Your task to perform on an android device: turn notification dots on Image 0: 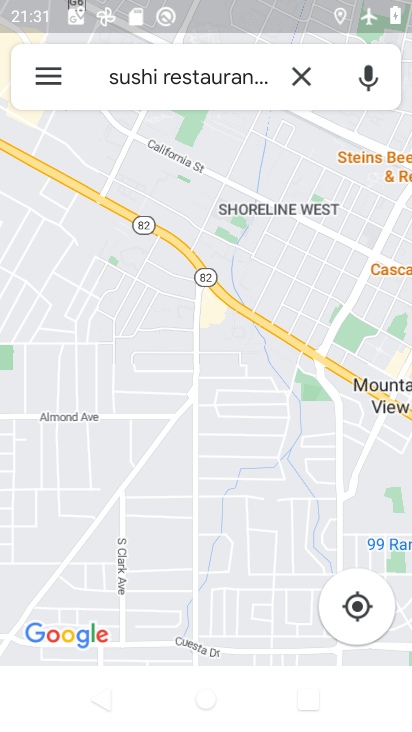
Step 0: drag from (141, 261) to (297, 699)
Your task to perform on an android device: turn notification dots on Image 1: 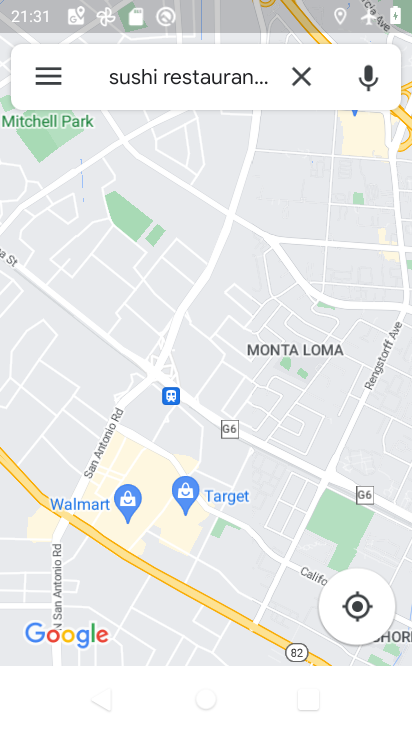
Step 1: click (295, 75)
Your task to perform on an android device: turn notification dots on Image 2: 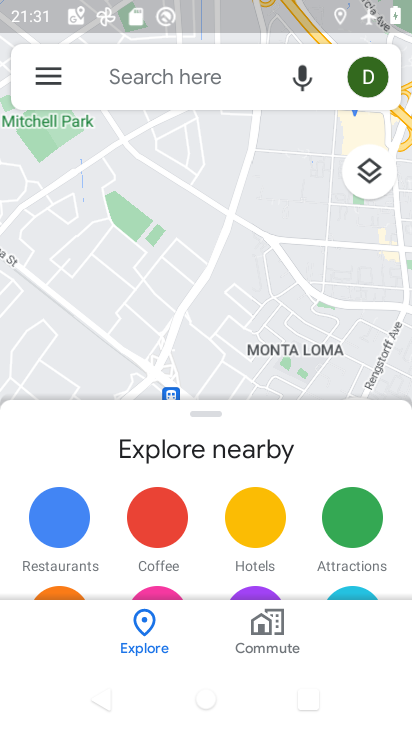
Step 2: click (47, 77)
Your task to perform on an android device: turn notification dots on Image 3: 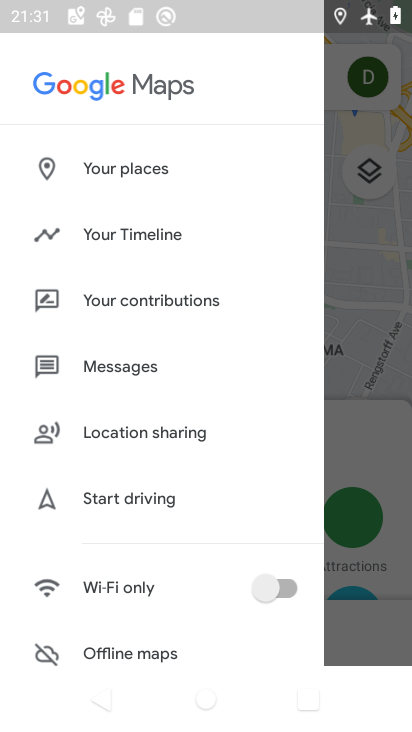
Step 3: drag from (158, 609) to (175, 262)
Your task to perform on an android device: turn notification dots on Image 4: 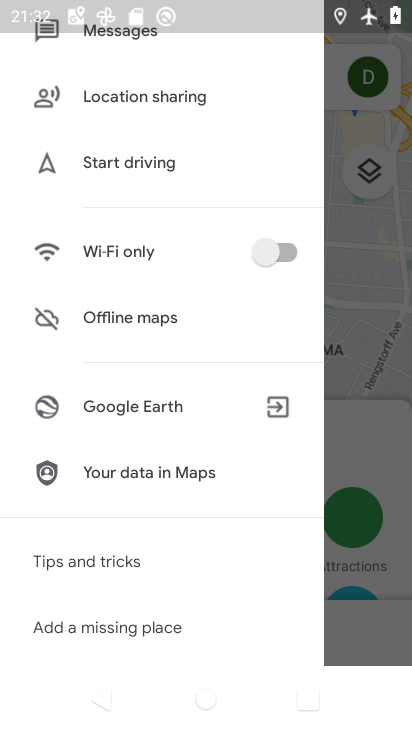
Step 4: drag from (185, 250) to (205, 703)
Your task to perform on an android device: turn notification dots on Image 5: 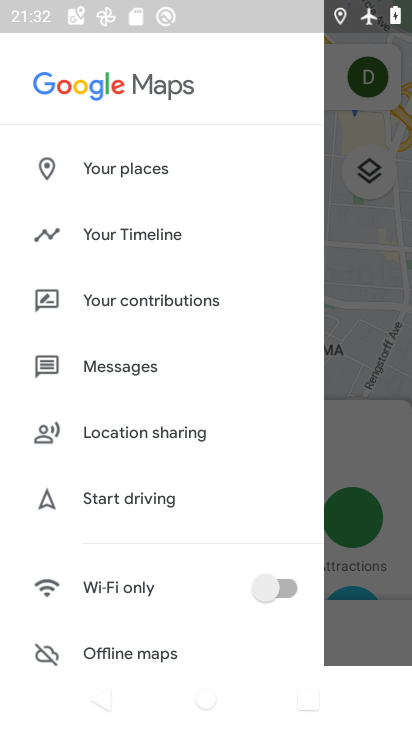
Step 5: drag from (183, 259) to (198, 664)
Your task to perform on an android device: turn notification dots on Image 6: 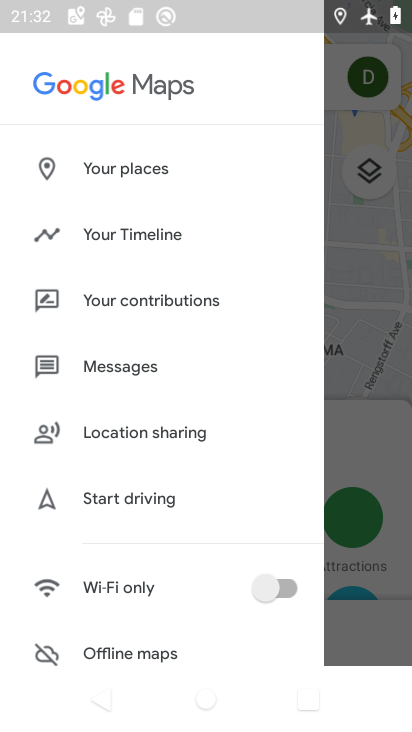
Step 6: drag from (181, 617) to (199, 671)
Your task to perform on an android device: turn notification dots on Image 7: 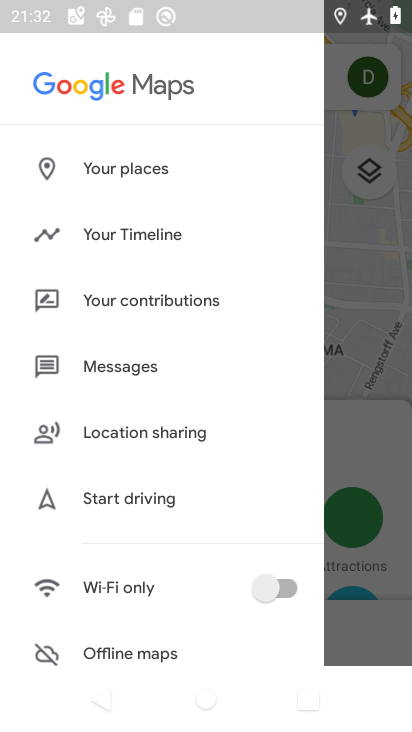
Step 7: drag from (172, 496) to (209, 593)
Your task to perform on an android device: turn notification dots on Image 8: 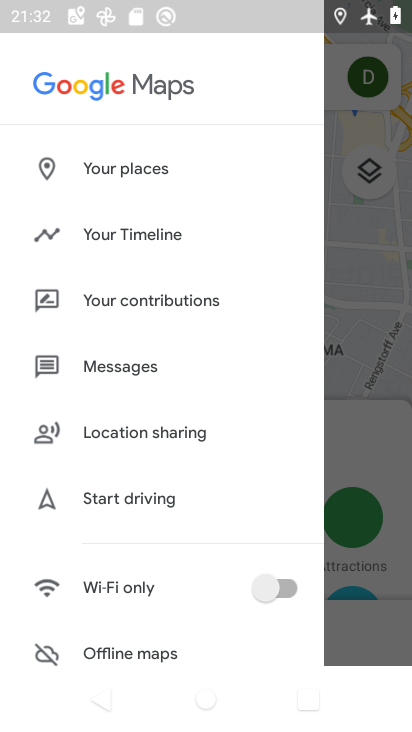
Step 8: drag from (152, 607) to (226, 101)
Your task to perform on an android device: turn notification dots on Image 9: 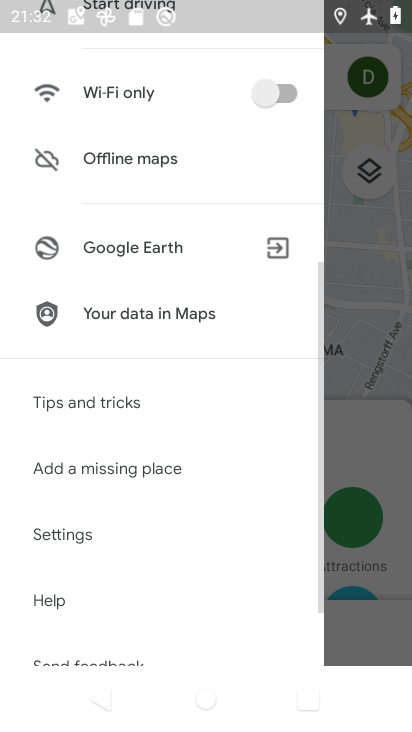
Step 9: drag from (170, 181) to (163, 727)
Your task to perform on an android device: turn notification dots on Image 10: 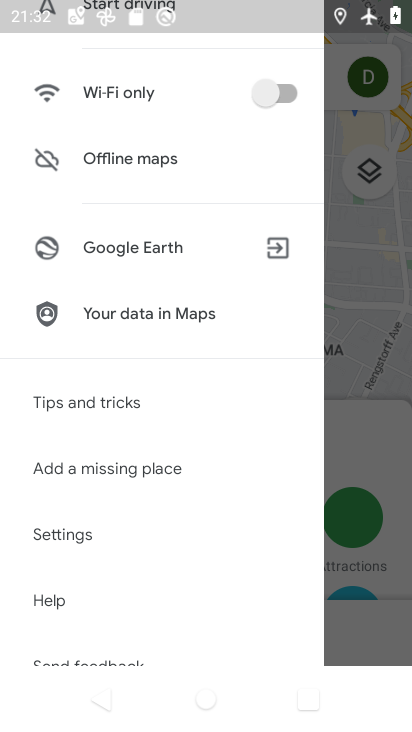
Step 10: drag from (161, 513) to (220, 19)
Your task to perform on an android device: turn notification dots on Image 11: 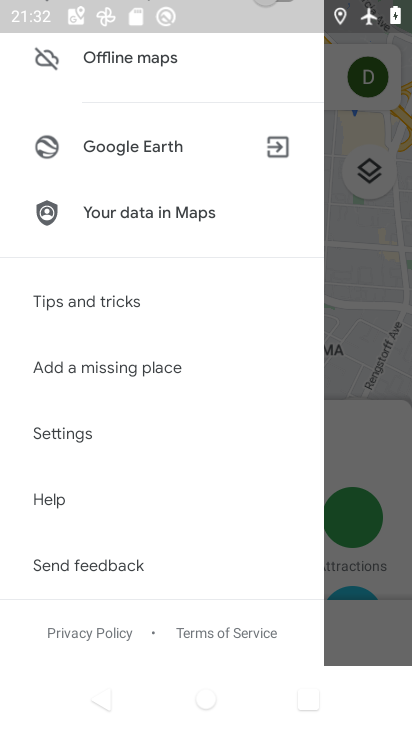
Step 11: click (98, 435)
Your task to perform on an android device: turn notification dots on Image 12: 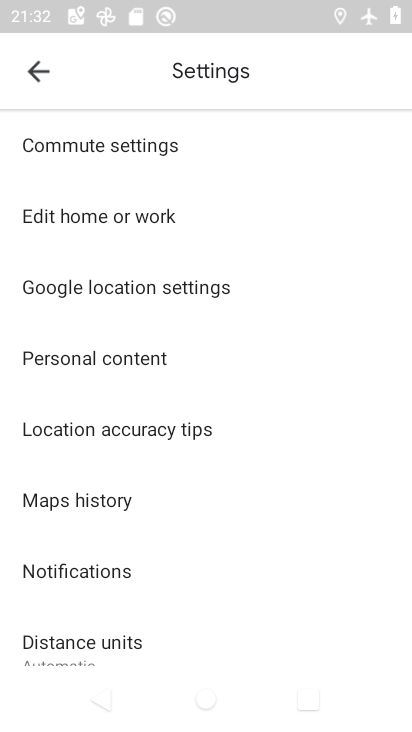
Step 12: drag from (194, 536) to (213, 237)
Your task to perform on an android device: turn notification dots on Image 13: 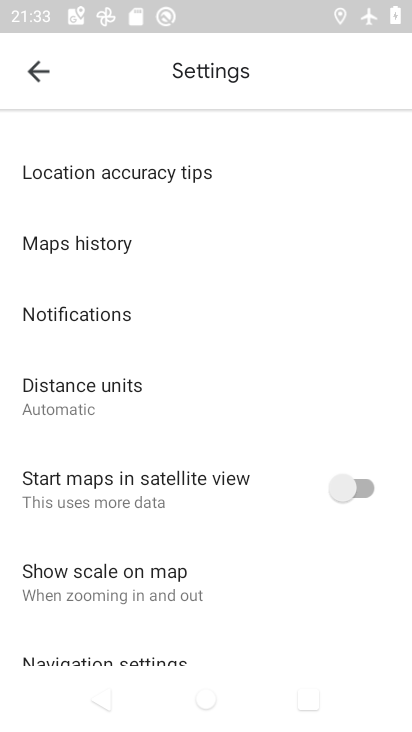
Step 13: drag from (194, 578) to (232, 206)
Your task to perform on an android device: turn notification dots on Image 14: 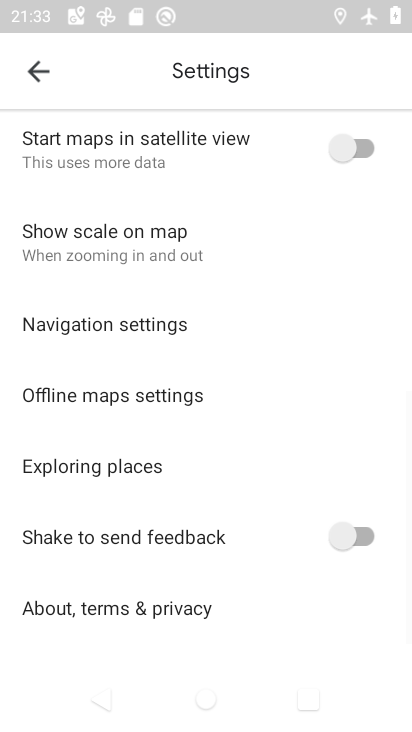
Step 14: drag from (191, 267) to (224, 730)
Your task to perform on an android device: turn notification dots on Image 15: 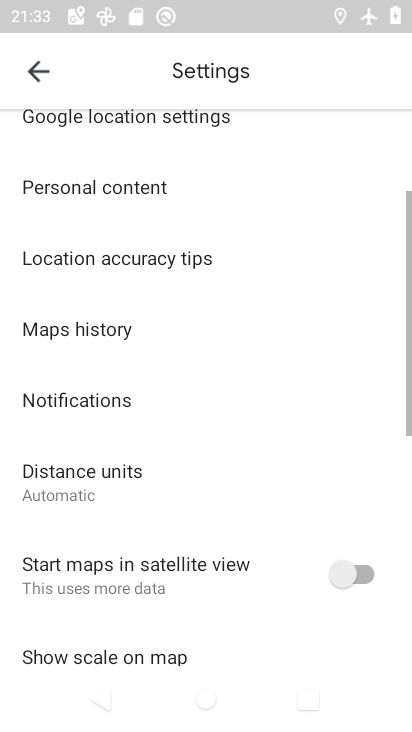
Step 15: drag from (161, 218) to (253, 676)
Your task to perform on an android device: turn notification dots on Image 16: 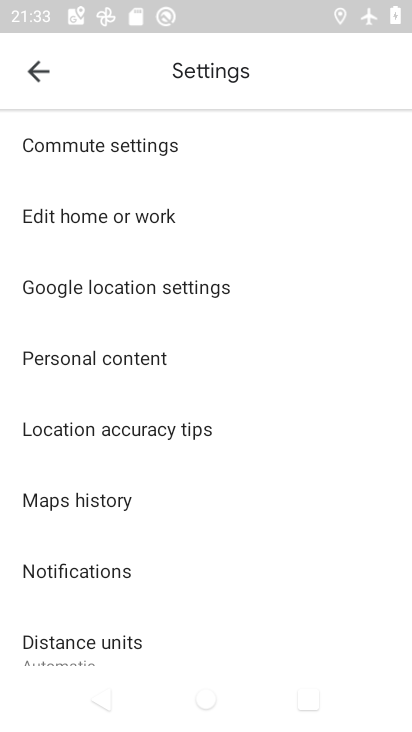
Step 16: drag from (178, 239) to (314, 718)
Your task to perform on an android device: turn notification dots on Image 17: 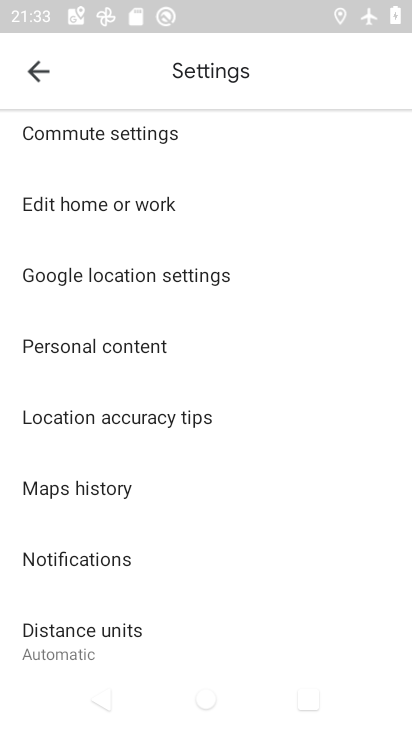
Step 17: click (106, 558)
Your task to perform on an android device: turn notification dots on Image 18: 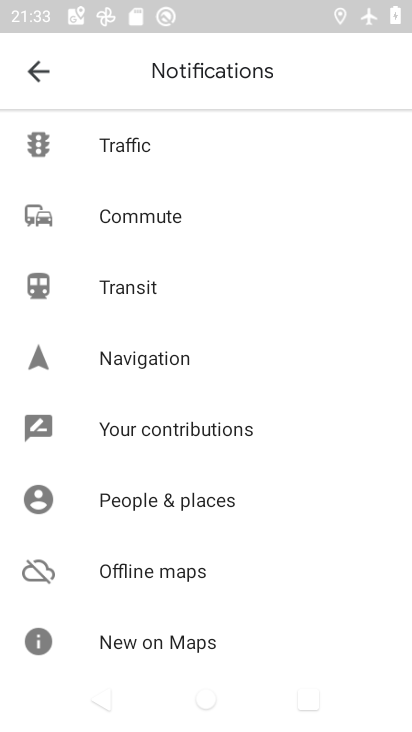
Step 18: drag from (217, 580) to (255, 215)
Your task to perform on an android device: turn notification dots on Image 19: 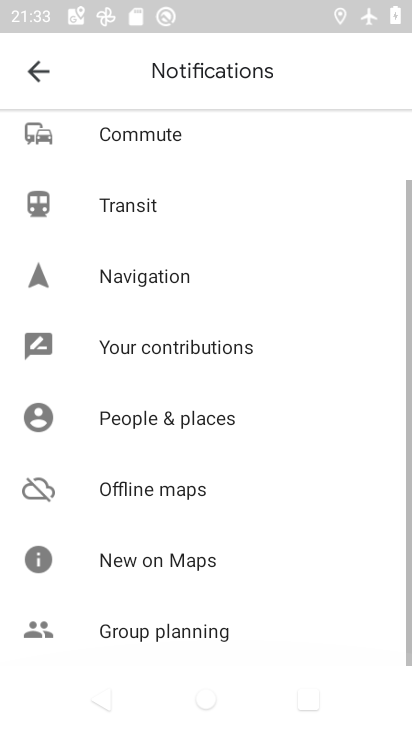
Step 19: drag from (250, 218) to (222, 618)
Your task to perform on an android device: turn notification dots on Image 20: 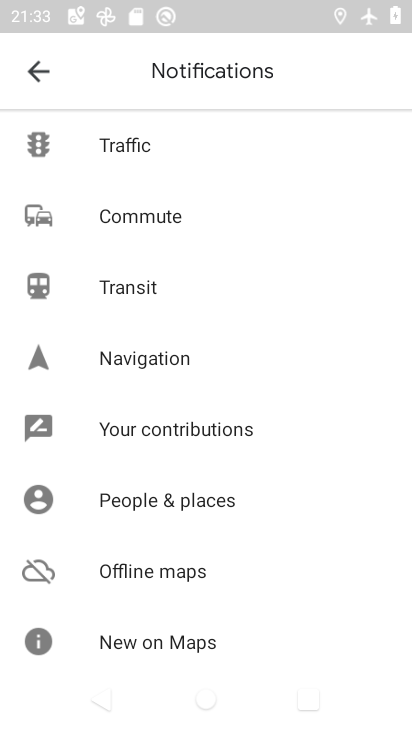
Step 20: drag from (190, 392) to (405, 543)
Your task to perform on an android device: turn notification dots on Image 21: 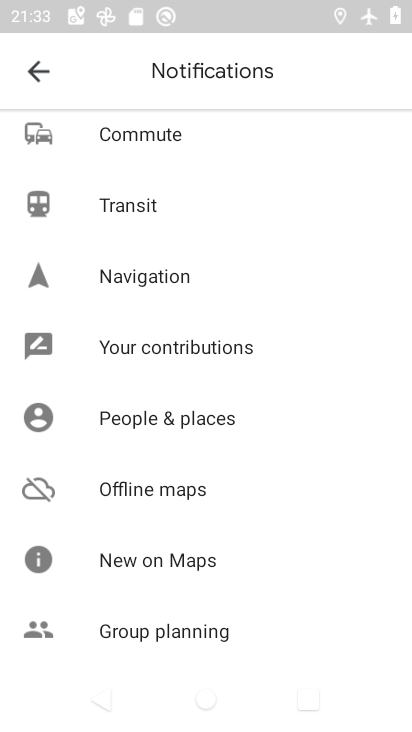
Step 21: click (26, 73)
Your task to perform on an android device: turn notification dots on Image 22: 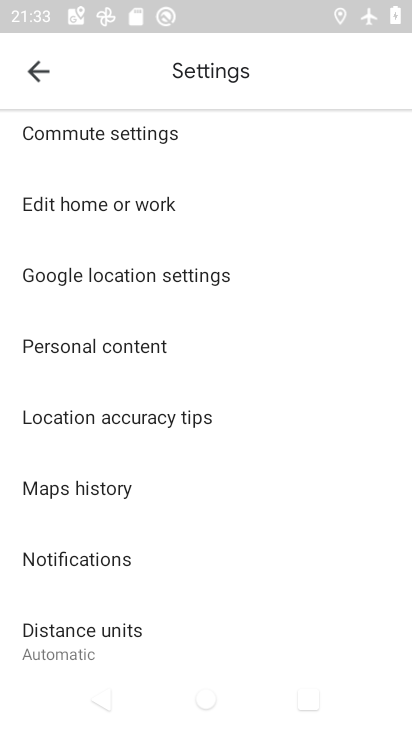
Step 22: drag from (207, 199) to (214, 711)
Your task to perform on an android device: turn notification dots on Image 23: 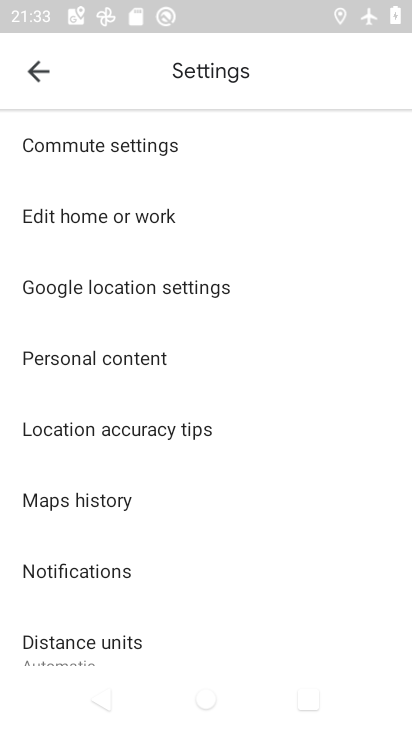
Step 23: click (37, 64)
Your task to perform on an android device: turn notification dots on Image 24: 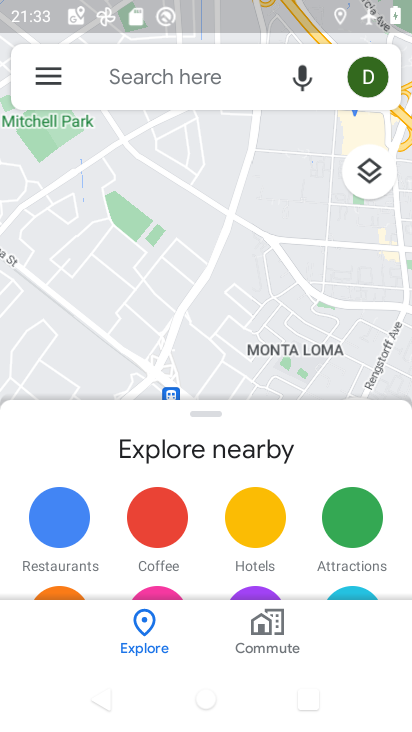
Step 24: click (37, 79)
Your task to perform on an android device: turn notification dots on Image 25: 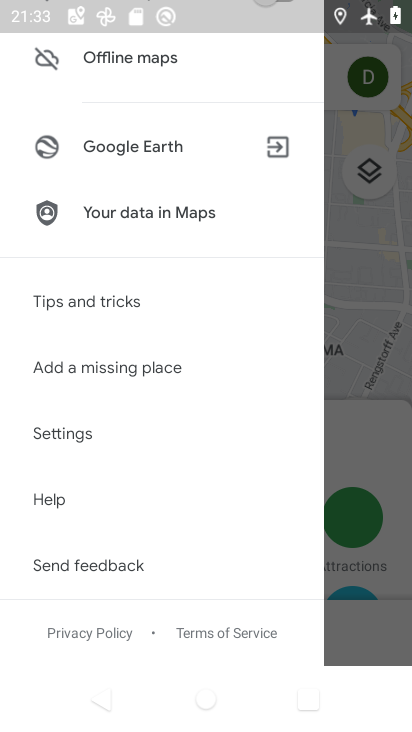
Step 25: press home button
Your task to perform on an android device: turn notification dots on Image 26: 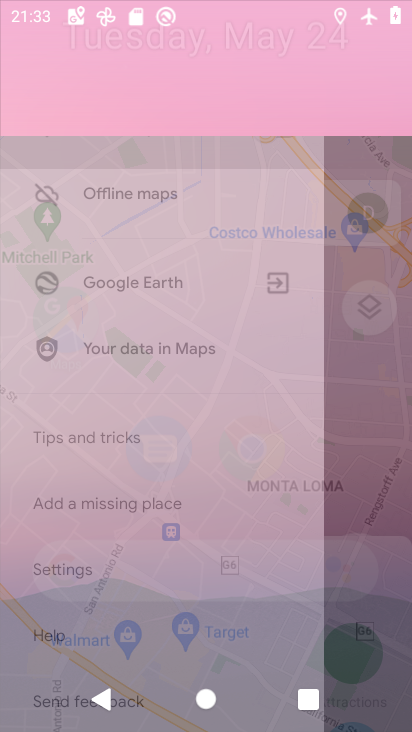
Step 26: drag from (172, 585) to (187, 80)
Your task to perform on an android device: turn notification dots on Image 27: 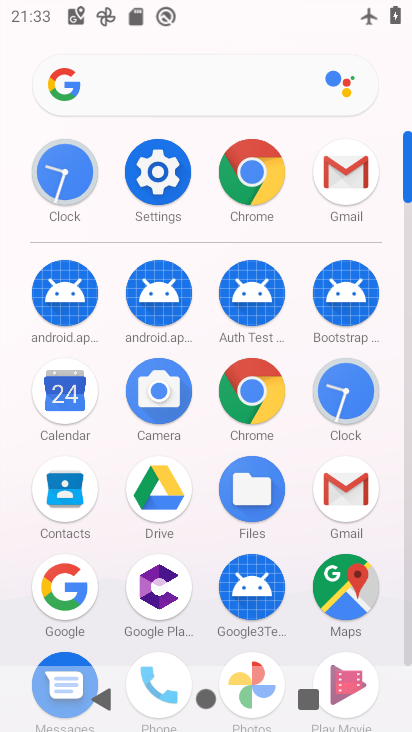
Step 27: click (155, 151)
Your task to perform on an android device: turn notification dots on Image 28: 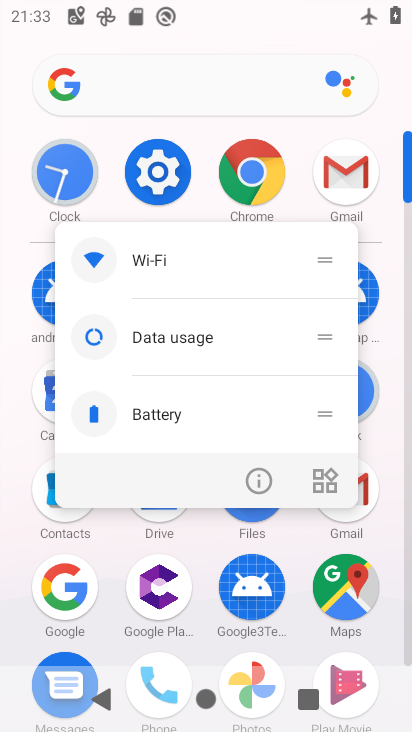
Step 28: click (258, 481)
Your task to perform on an android device: turn notification dots on Image 29: 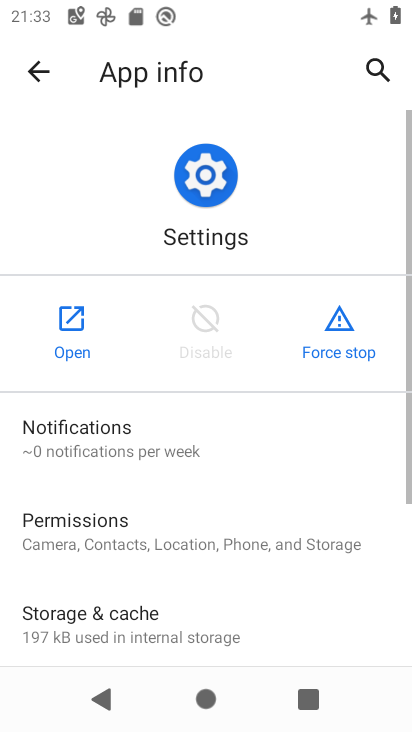
Step 29: click (64, 327)
Your task to perform on an android device: turn notification dots on Image 30: 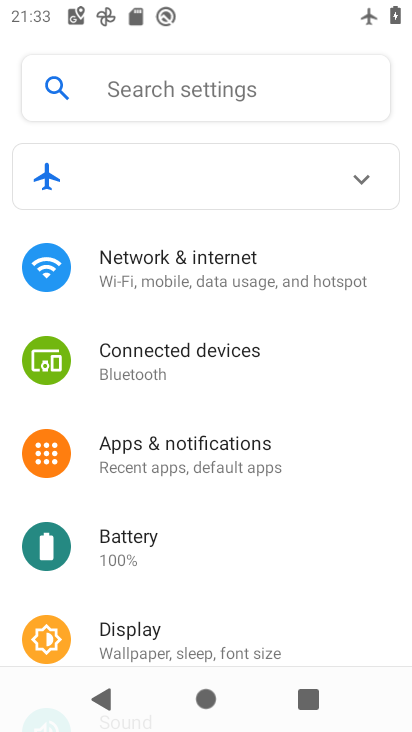
Step 30: drag from (232, 551) to (221, 239)
Your task to perform on an android device: turn notification dots on Image 31: 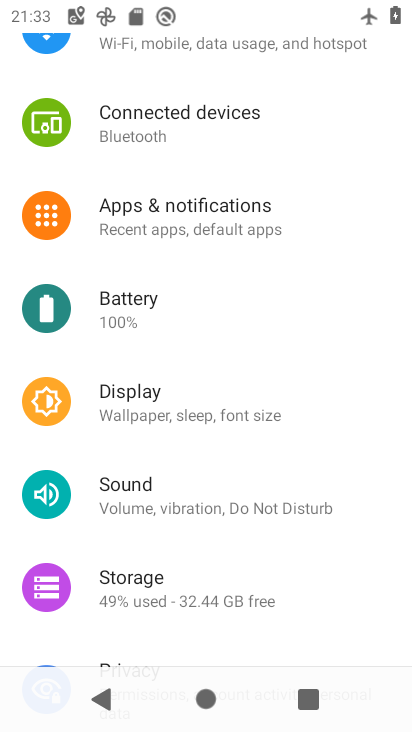
Step 31: drag from (217, 579) to (230, 190)
Your task to perform on an android device: turn notification dots on Image 32: 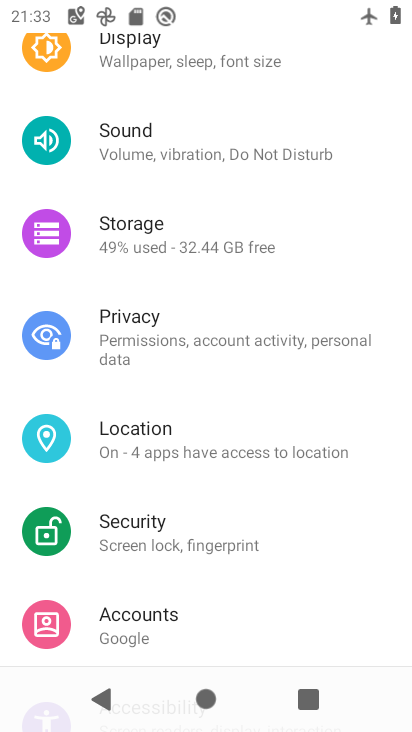
Step 32: drag from (217, 193) to (234, 655)
Your task to perform on an android device: turn notification dots on Image 33: 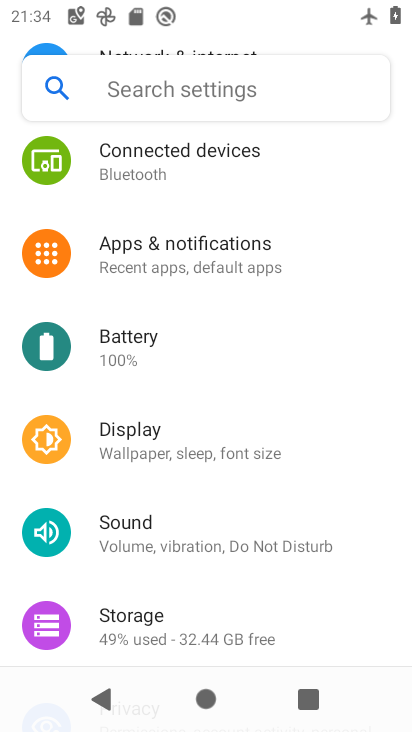
Step 33: click (145, 245)
Your task to perform on an android device: turn notification dots on Image 34: 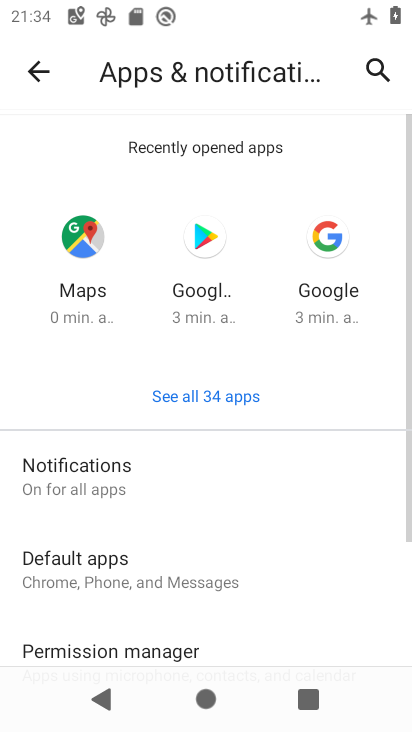
Step 34: drag from (178, 518) to (256, 202)
Your task to perform on an android device: turn notification dots on Image 35: 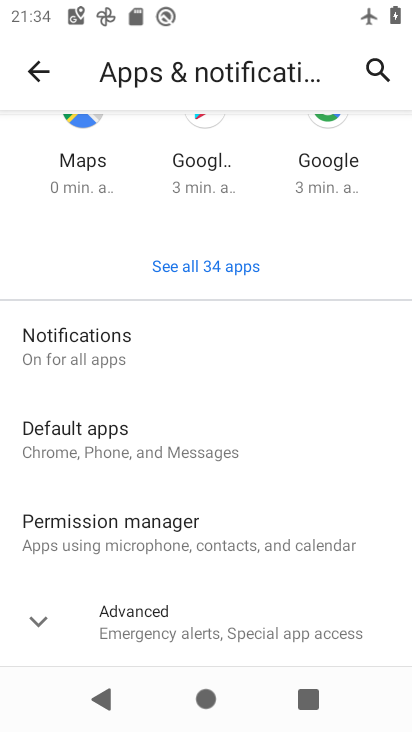
Step 35: click (184, 342)
Your task to perform on an android device: turn notification dots on Image 36: 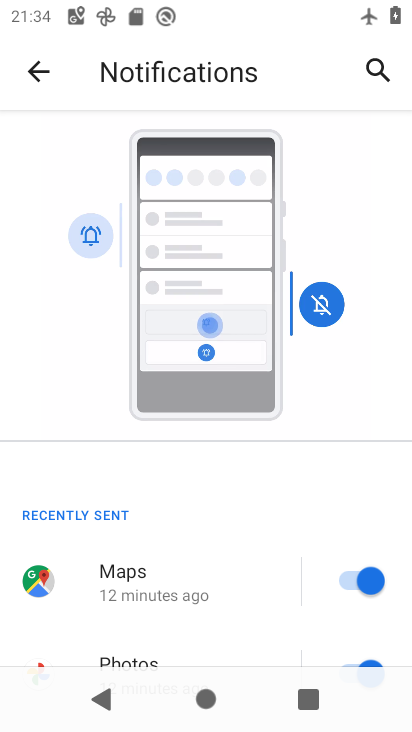
Step 36: drag from (206, 630) to (301, 144)
Your task to perform on an android device: turn notification dots on Image 37: 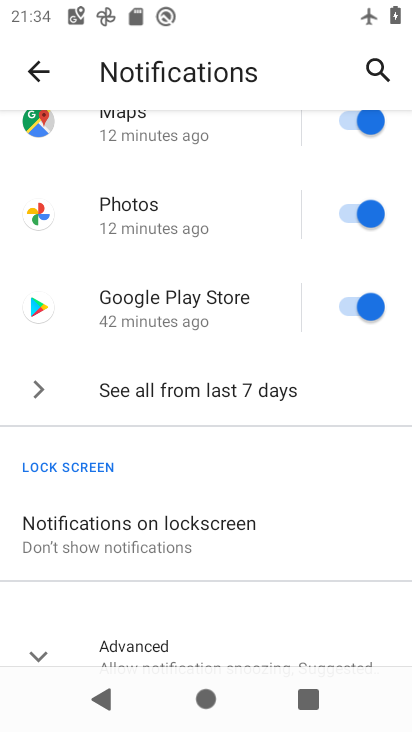
Step 37: drag from (236, 502) to (265, 263)
Your task to perform on an android device: turn notification dots on Image 38: 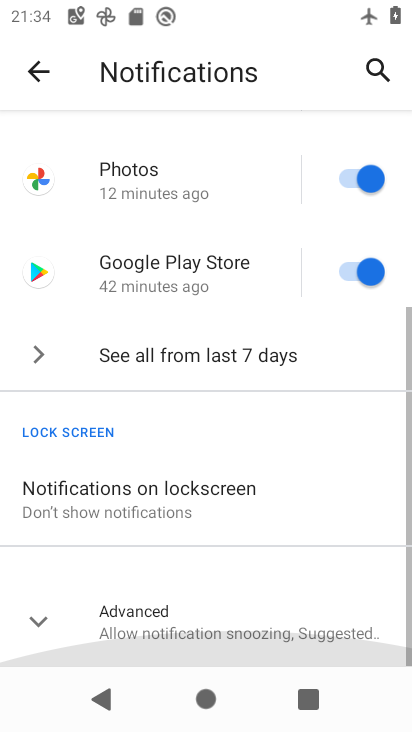
Step 38: drag from (272, 237) to (212, 717)
Your task to perform on an android device: turn notification dots on Image 39: 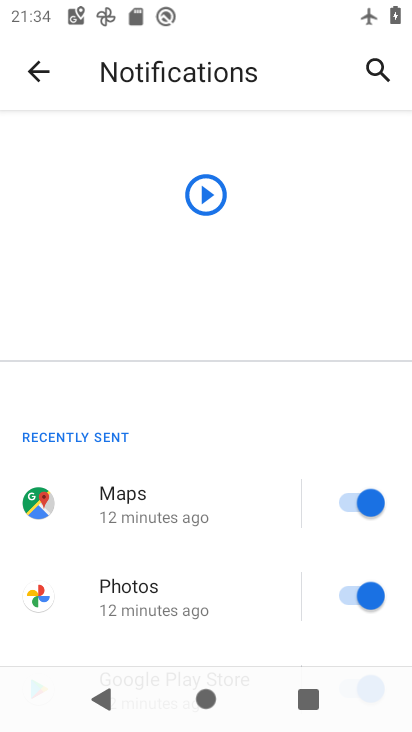
Step 39: drag from (202, 546) to (252, 284)
Your task to perform on an android device: turn notification dots on Image 40: 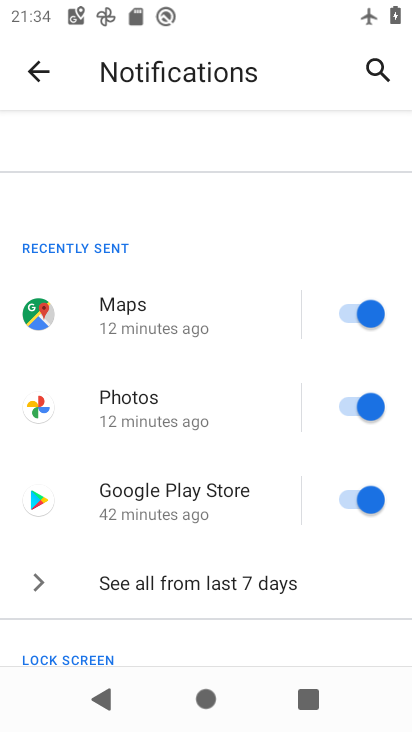
Step 40: drag from (209, 594) to (245, 293)
Your task to perform on an android device: turn notification dots on Image 41: 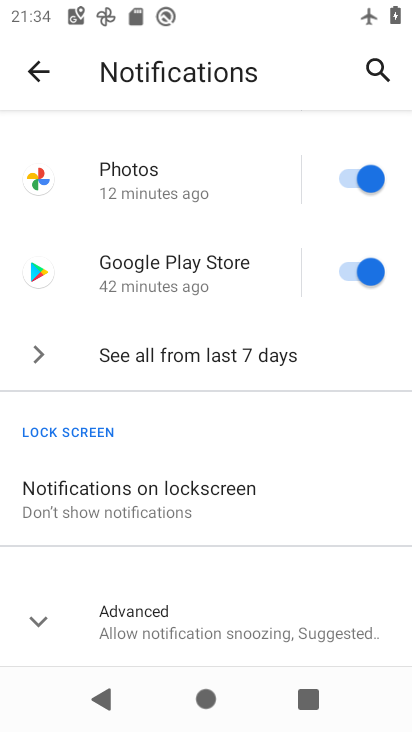
Step 41: drag from (196, 635) to (202, 146)
Your task to perform on an android device: turn notification dots on Image 42: 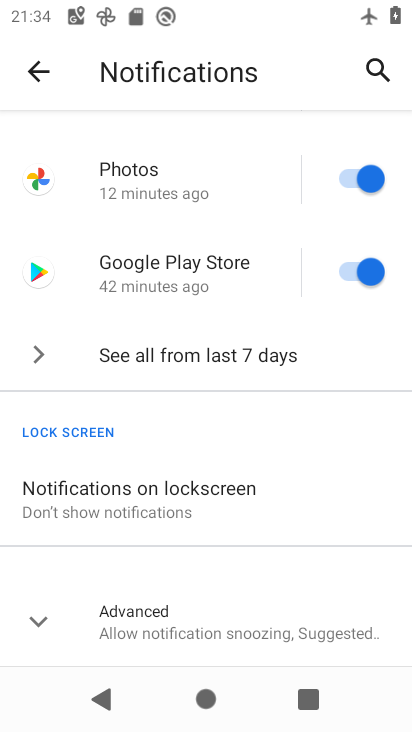
Step 42: click (172, 610)
Your task to perform on an android device: turn notification dots on Image 43: 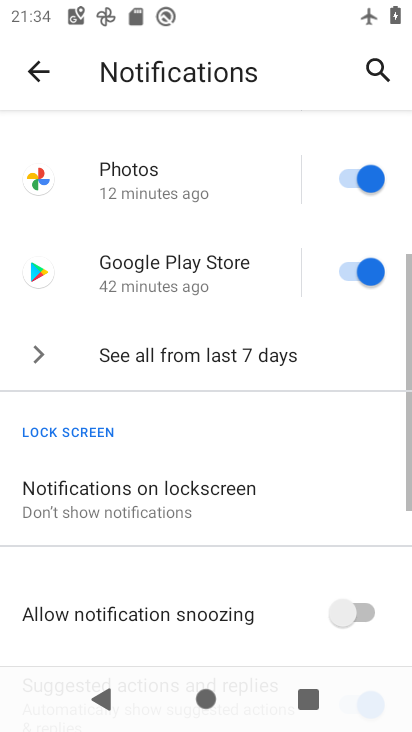
Step 43: drag from (172, 610) to (292, 0)
Your task to perform on an android device: turn notification dots on Image 44: 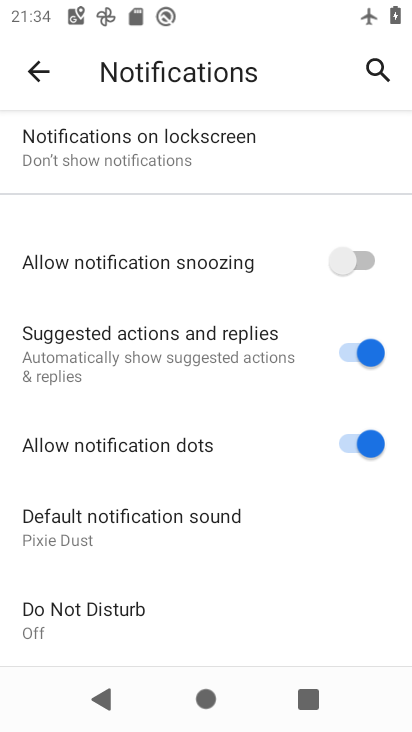
Step 44: click (362, 437)
Your task to perform on an android device: turn notification dots on Image 45: 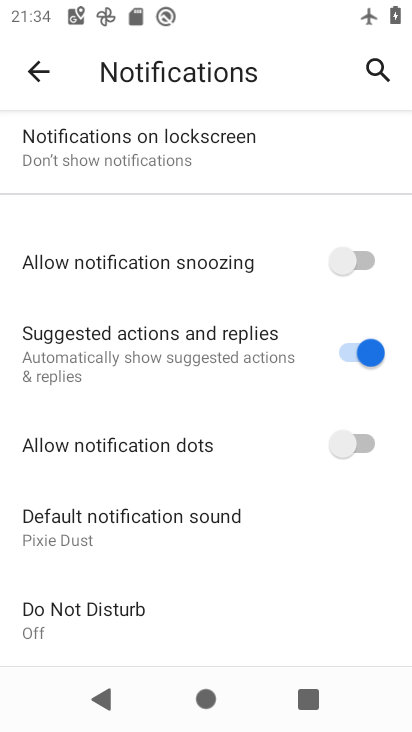
Step 45: click (342, 439)
Your task to perform on an android device: turn notification dots on Image 46: 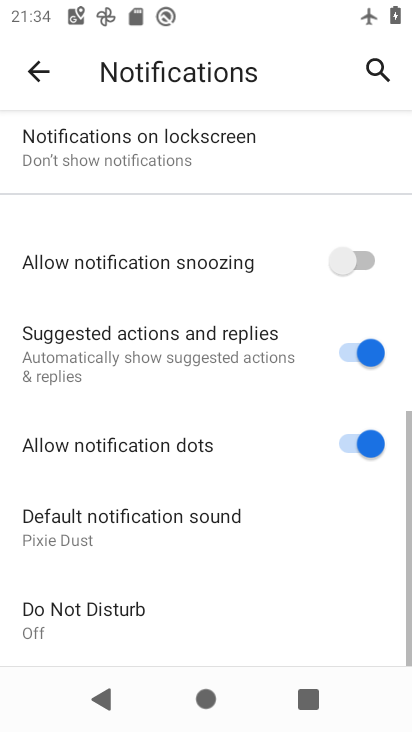
Step 46: task complete